Your task to perform on an android device: Go to Google maps Image 0: 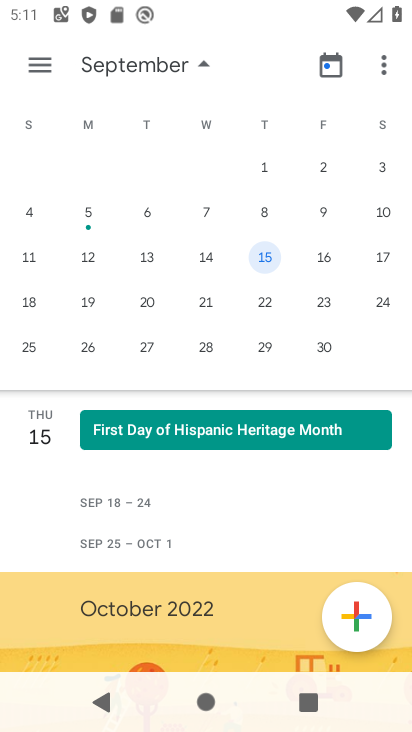
Step 0: press home button
Your task to perform on an android device: Go to Google maps Image 1: 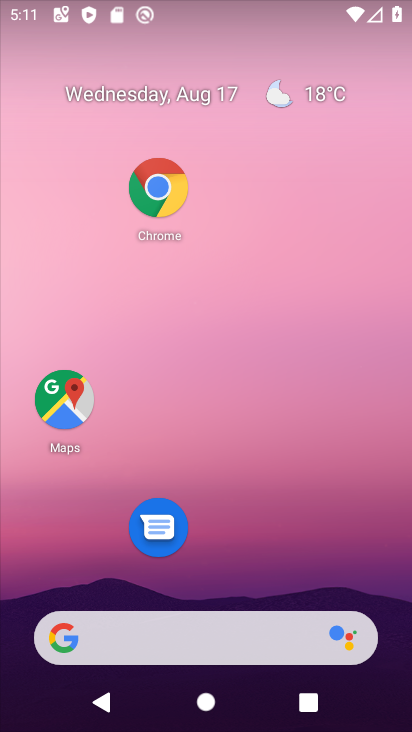
Step 1: click (64, 387)
Your task to perform on an android device: Go to Google maps Image 2: 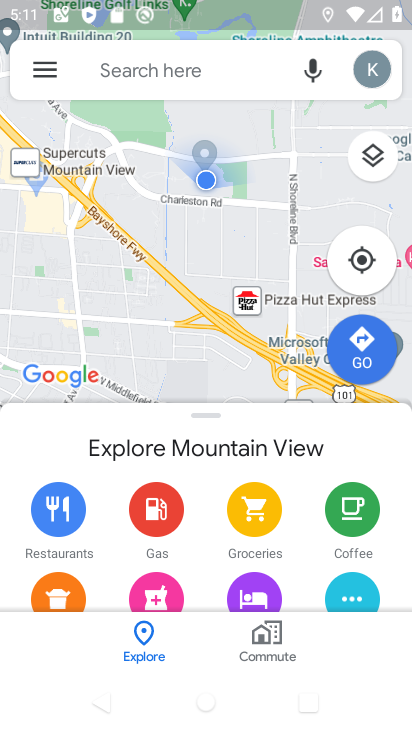
Step 2: task complete